Your task to perform on an android device: What's the weather going to be tomorrow? Image 0: 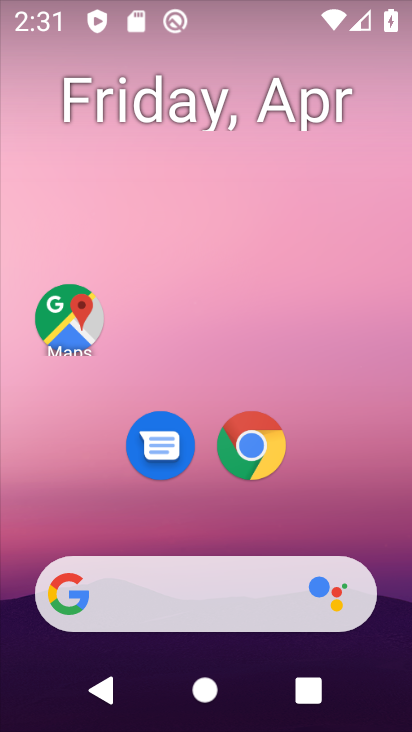
Step 0: drag from (296, 507) to (313, 78)
Your task to perform on an android device: What's the weather going to be tomorrow? Image 1: 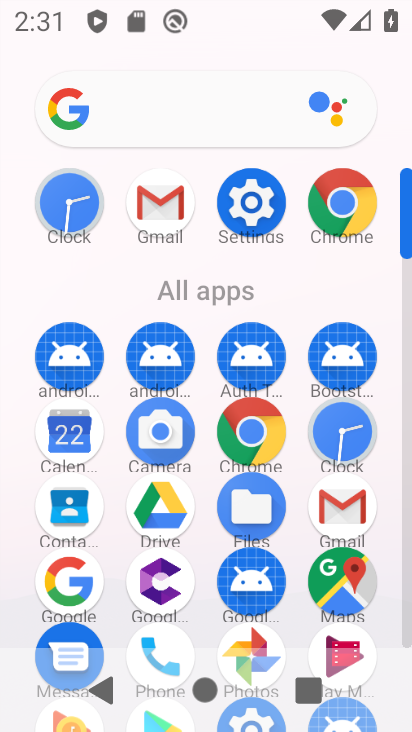
Step 1: click (76, 580)
Your task to perform on an android device: What's the weather going to be tomorrow? Image 2: 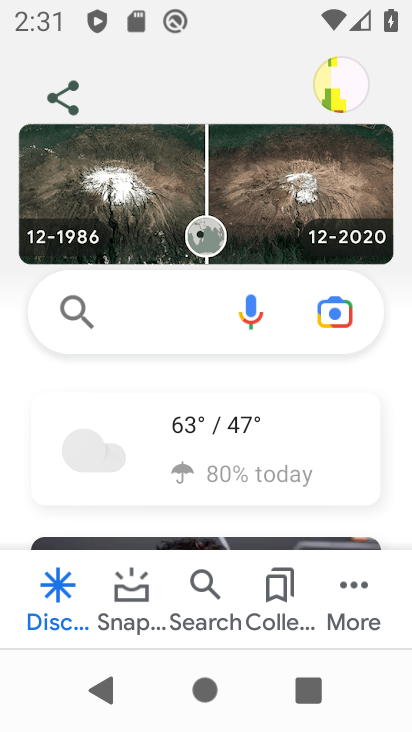
Step 2: click (240, 415)
Your task to perform on an android device: What's the weather going to be tomorrow? Image 3: 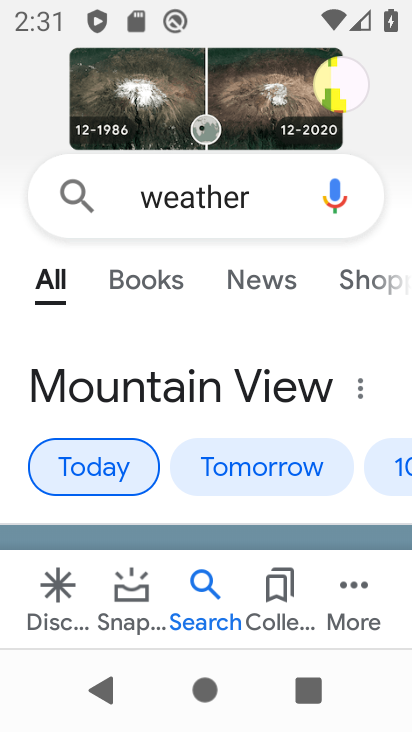
Step 3: click (254, 473)
Your task to perform on an android device: What's the weather going to be tomorrow? Image 4: 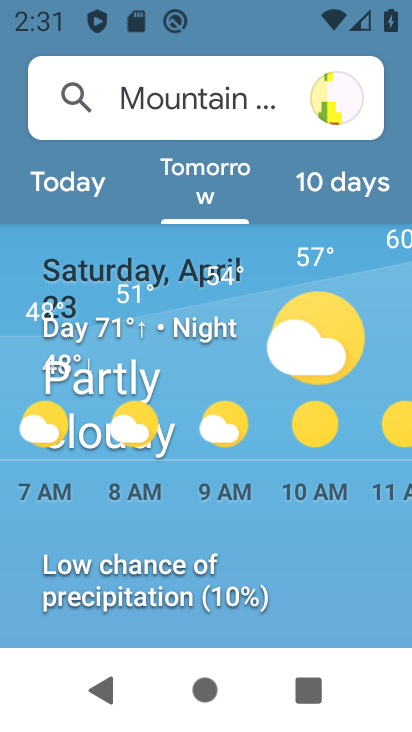
Step 4: task complete